Your task to perform on an android device: all mails in gmail Image 0: 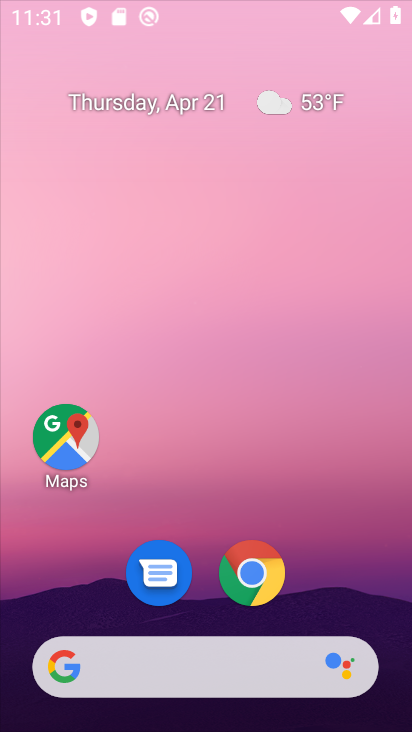
Step 0: drag from (143, 657) to (272, 180)
Your task to perform on an android device: all mails in gmail Image 1: 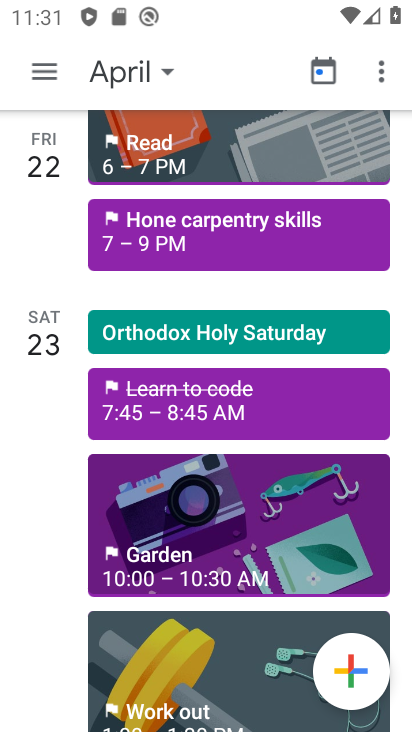
Step 1: press home button
Your task to perform on an android device: all mails in gmail Image 2: 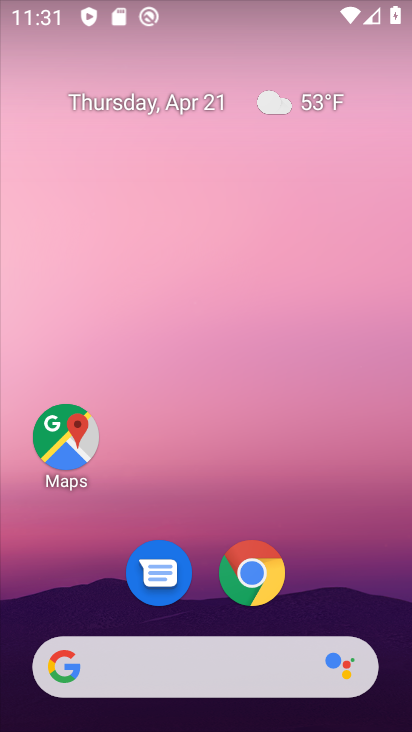
Step 2: drag from (181, 639) to (323, 122)
Your task to perform on an android device: all mails in gmail Image 3: 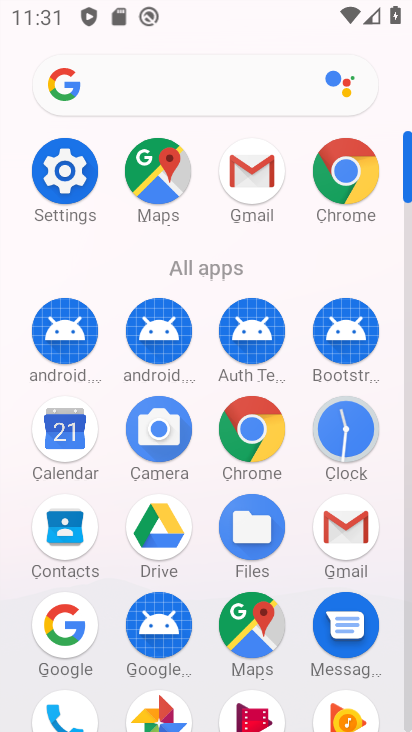
Step 3: click (261, 187)
Your task to perform on an android device: all mails in gmail Image 4: 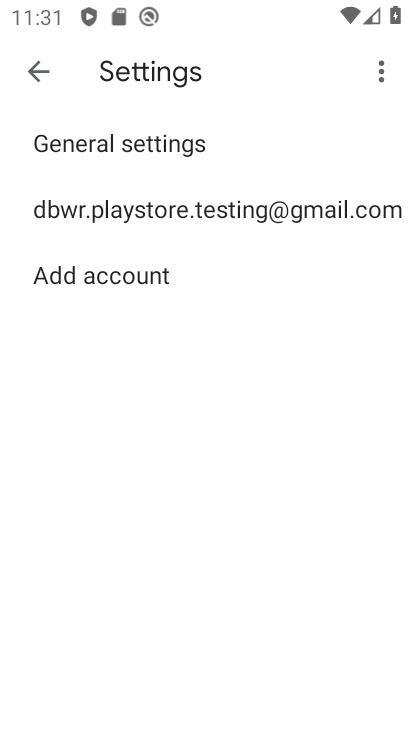
Step 4: click (48, 74)
Your task to perform on an android device: all mails in gmail Image 5: 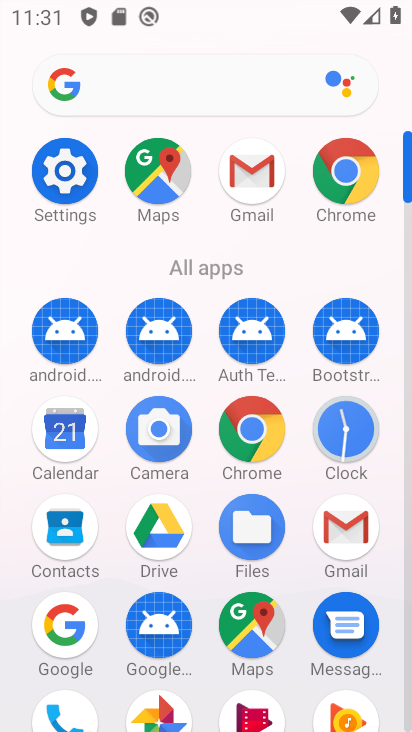
Step 5: click (256, 179)
Your task to perform on an android device: all mails in gmail Image 6: 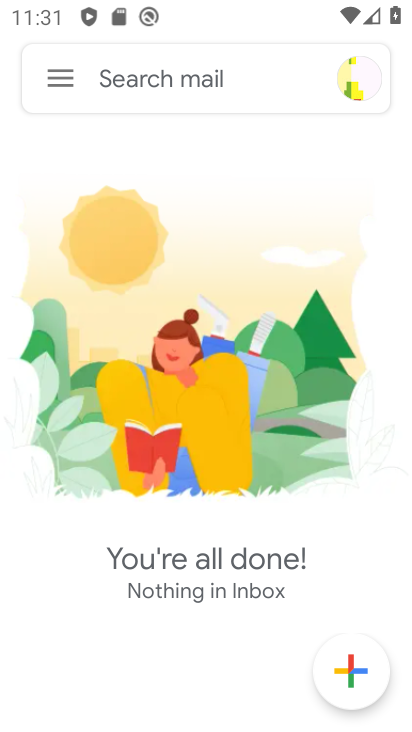
Step 6: click (65, 71)
Your task to perform on an android device: all mails in gmail Image 7: 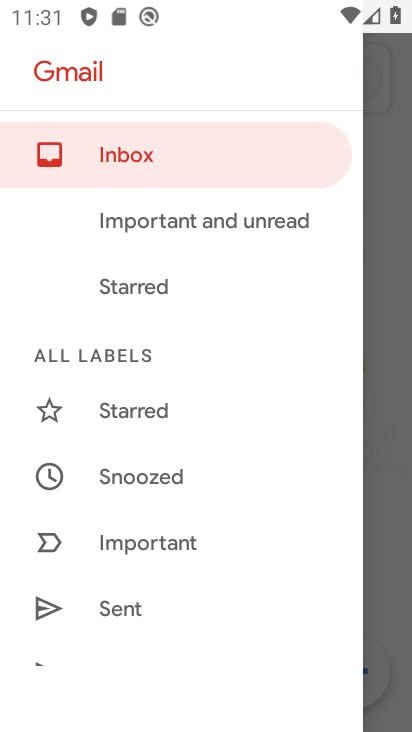
Step 7: drag from (150, 600) to (267, 241)
Your task to perform on an android device: all mails in gmail Image 8: 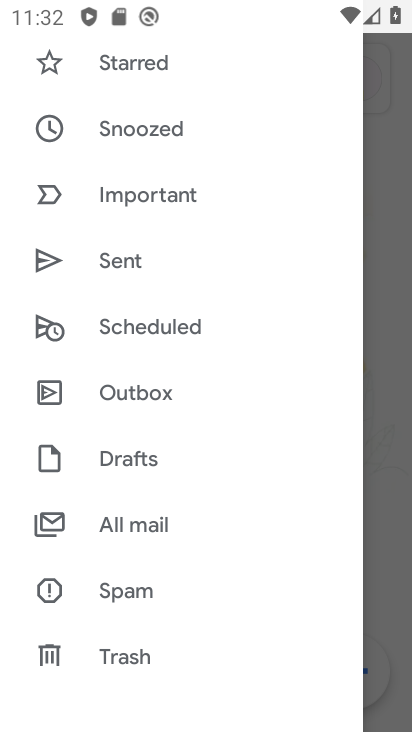
Step 8: click (154, 520)
Your task to perform on an android device: all mails in gmail Image 9: 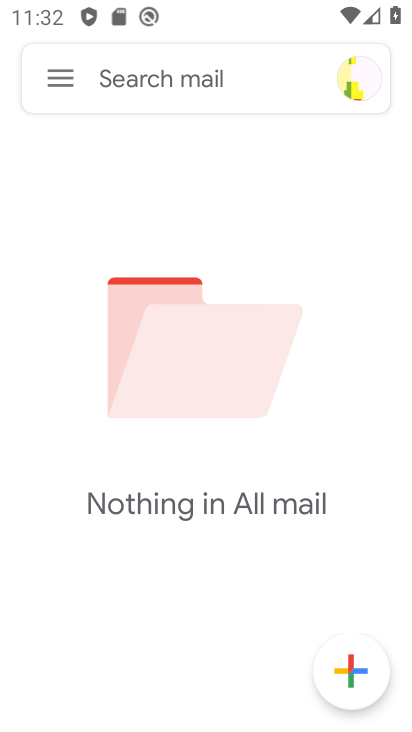
Step 9: task complete